Your task to perform on an android device: Open the stopwatch Image 0: 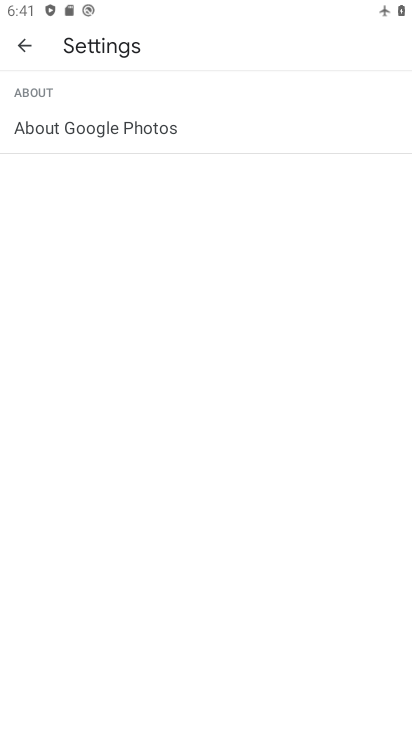
Step 0: press home button
Your task to perform on an android device: Open the stopwatch Image 1: 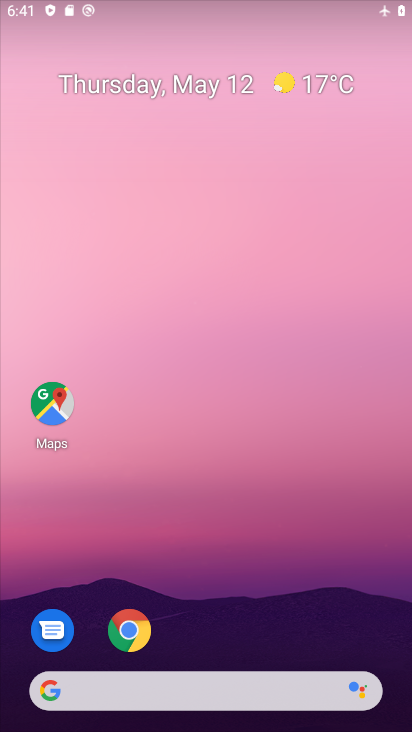
Step 1: drag from (349, 582) to (83, 6)
Your task to perform on an android device: Open the stopwatch Image 2: 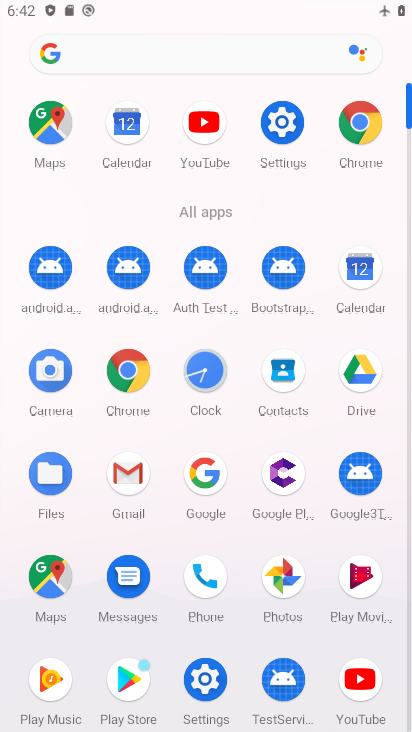
Step 2: click (184, 374)
Your task to perform on an android device: Open the stopwatch Image 3: 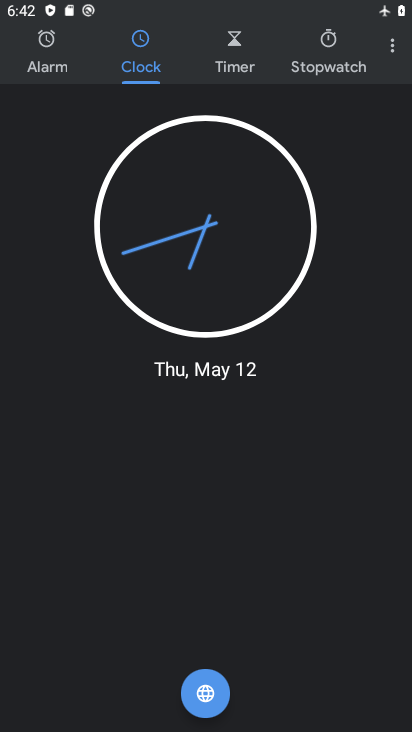
Step 3: click (325, 36)
Your task to perform on an android device: Open the stopwatch Image 4: 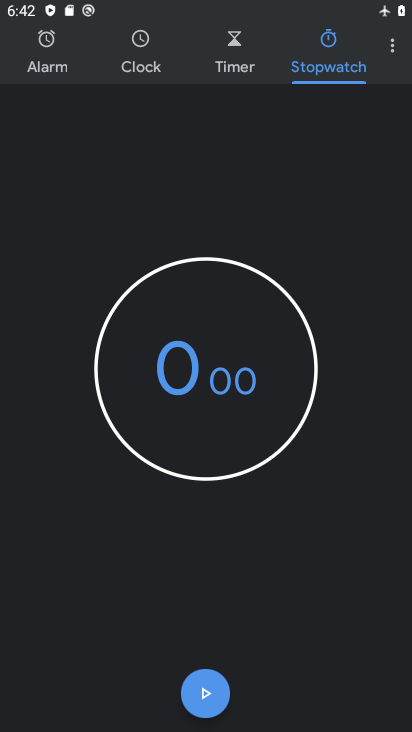
Step 4: task complete